Your task to perform on an android device: Open wifi settings Image 0: 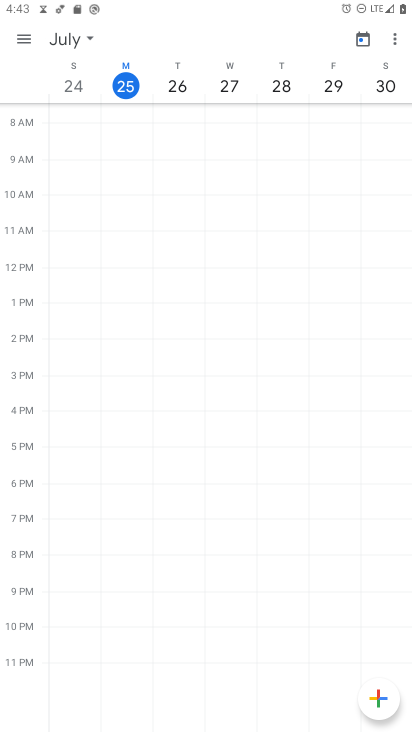
Step 0: press home button
Your task to perform on an android device: Open wifi settings Image 1: 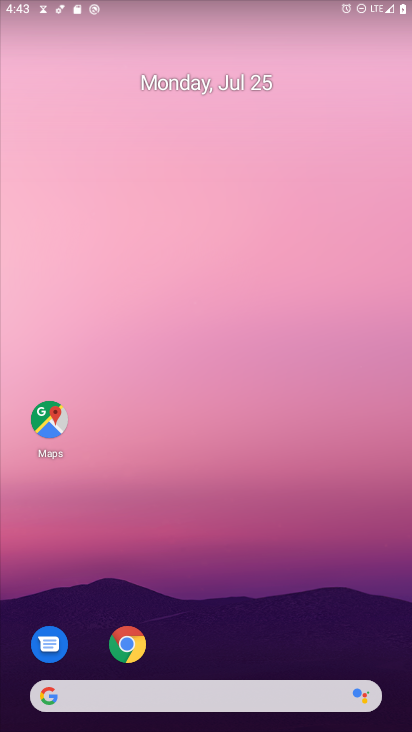
Step 1: drag from (250, 628) to (184, 144)
Your task to perform on an android device: Open wifi settings Image 2: 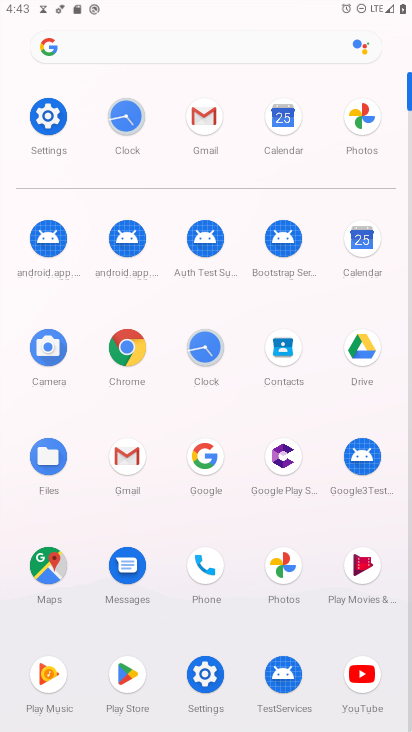
Step 2: click (47, 110)
Your task to perform on an android device: Open wifi settings Image 3: 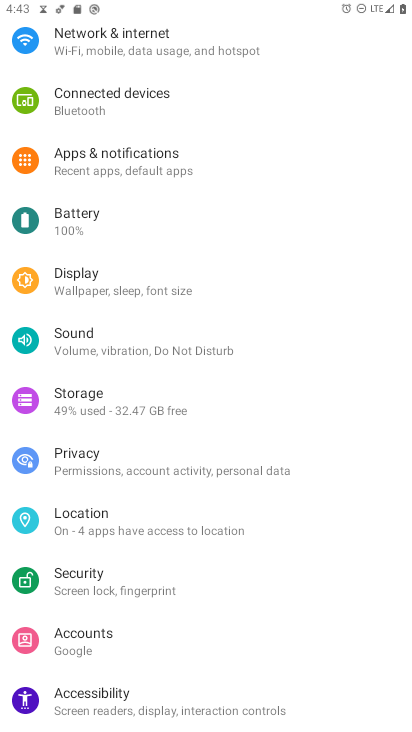
Step 3: click (128, 45)
Your task to perform on an android device: Open wifi settings Image 4: 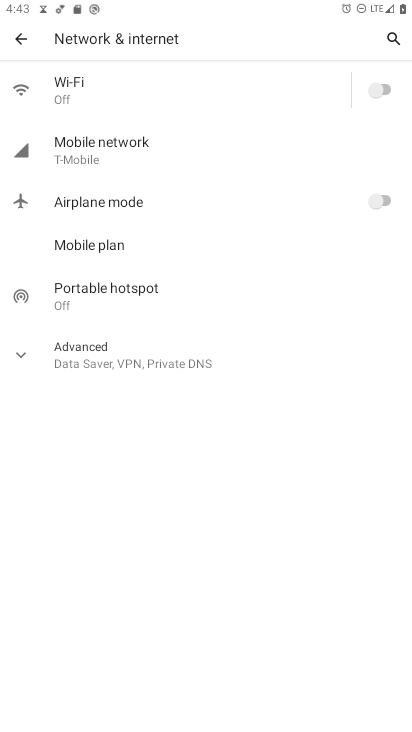
Step 4: task complete